Your task to perform on an android device: turn notification dots on Image 0: 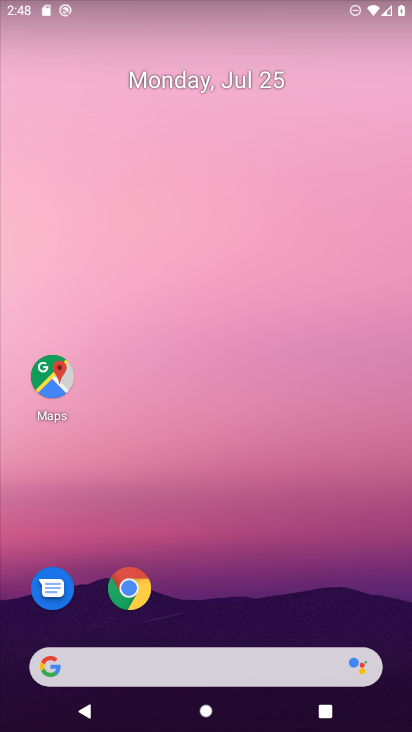
Step 0: drag from (301, 604) to (282, 205)
Your task to perform on an android device: turn notification dots on Image 1: 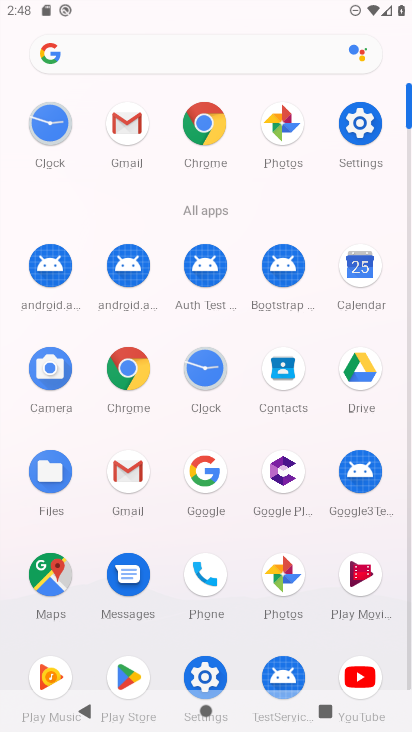
Step 1: click (352, 127)
Your task to perform on an android device: turn notification dots on Image 2: 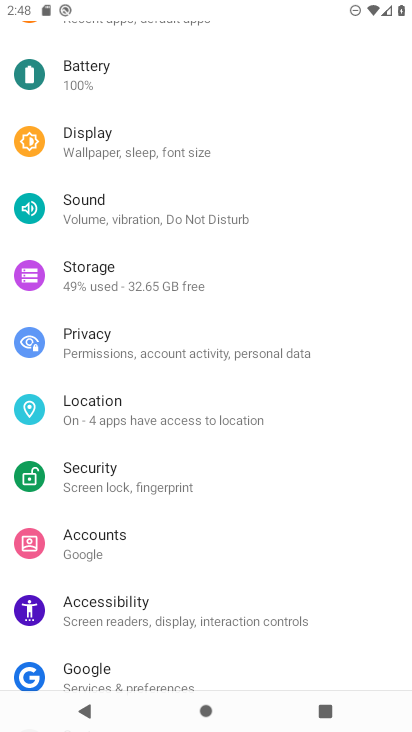
Step 2: drag from (103, 86) to (111, 599)
Your task to perform on an android device: turn notification dots on Image 3: 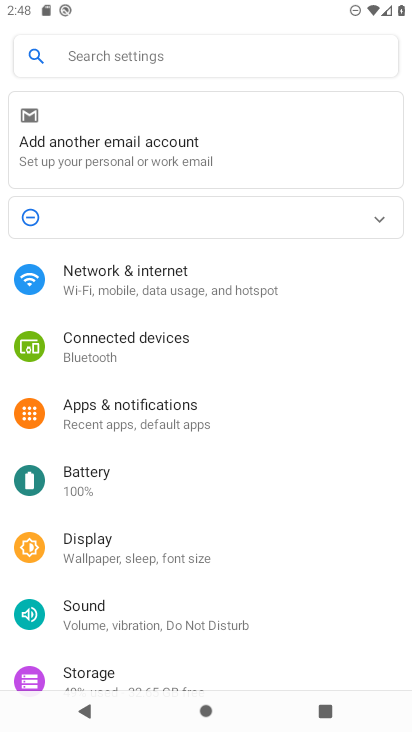
Step 3: click (129, 48)
Your task to perform on an android device: turn notification dots on Image 4: 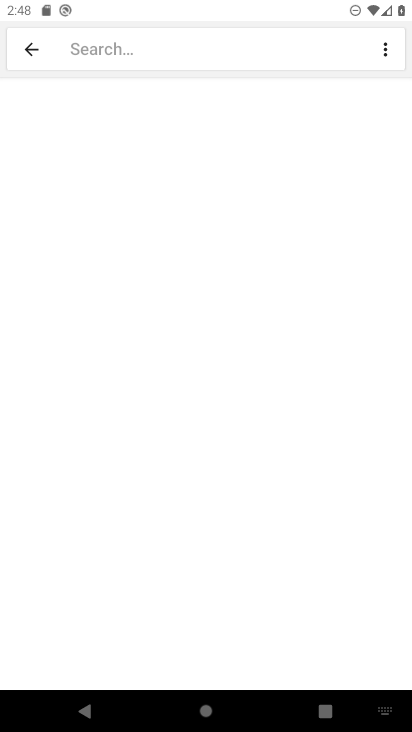
Step 4: click (121, 53)
Your task to perform on an android device: turn notification dots on Image 5: 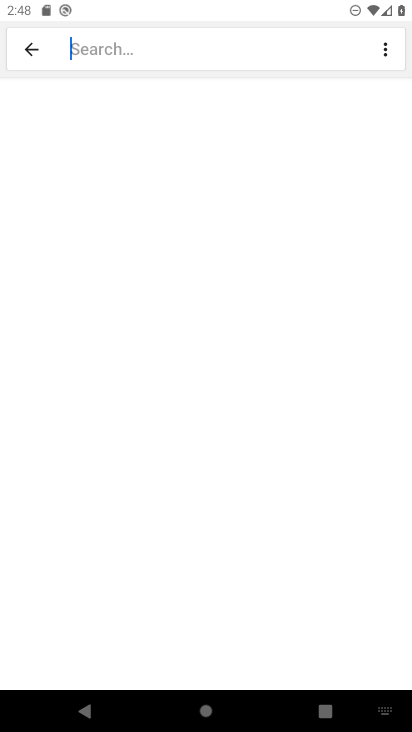
Step 5: click (222, 49)
Your task to perform on an android device: turn notification dots on Image 6: 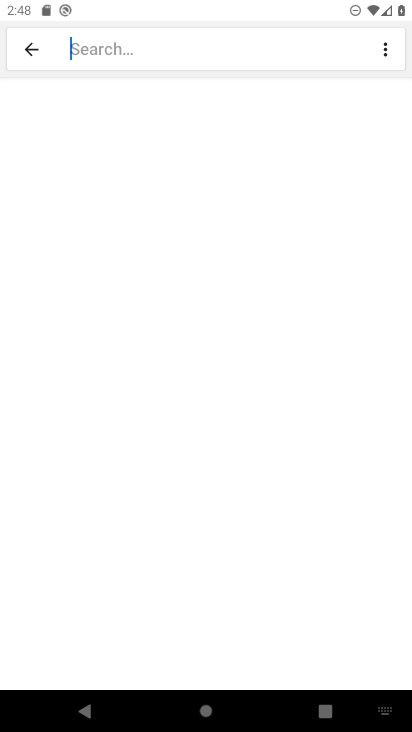
Step 6: click (204, 62)
Your task to perform on an android device: turn notification dots on Image 7: 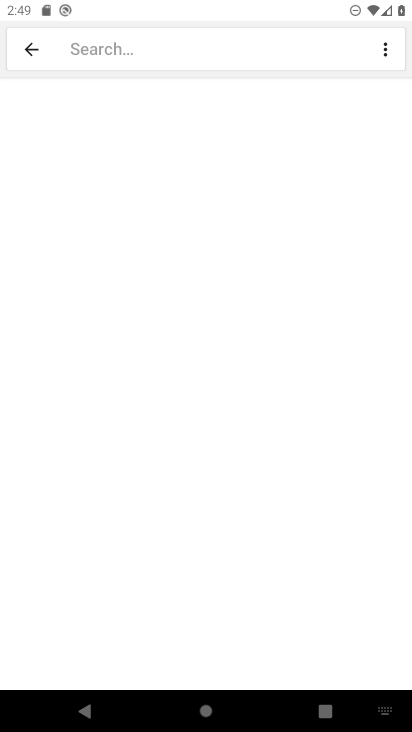
Step 7: type "notification dots "
Your task to perform on an android device: turn notification dots on Image 8: 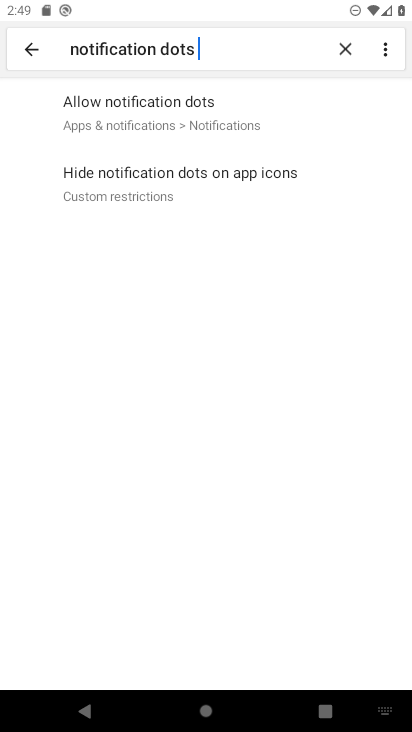
Step 8: click (100, 104)
Your task to perform on an android device: turn notification dots on Image 9: 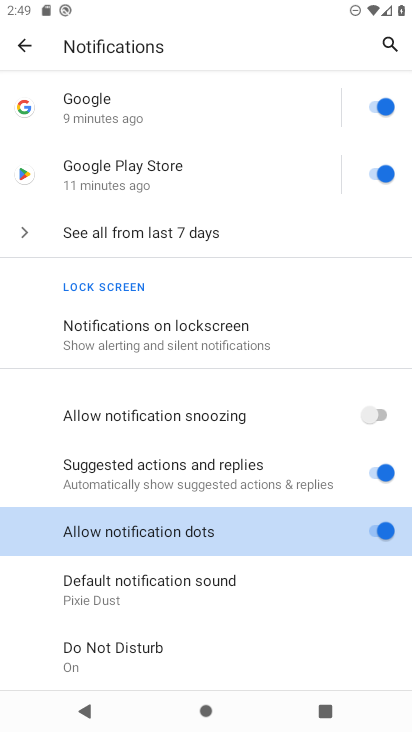
Step 9: task complete